Your task to perform on an android device: Go to notification settings Image 0: 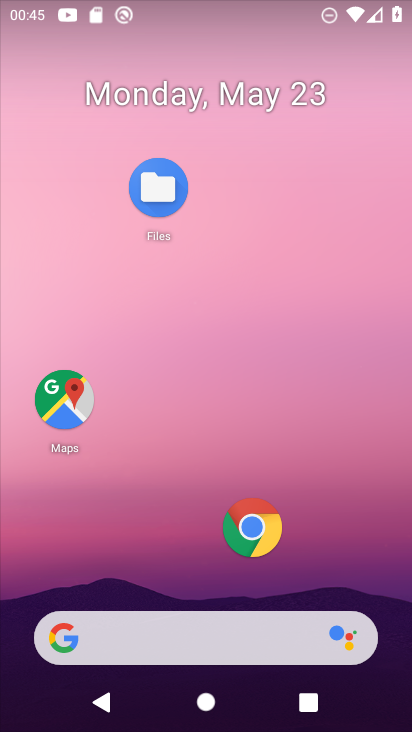
Step 0: drag from (200, 552) to (230, 126)
Your task to perform on an android device: Go to notification settings Image 1: 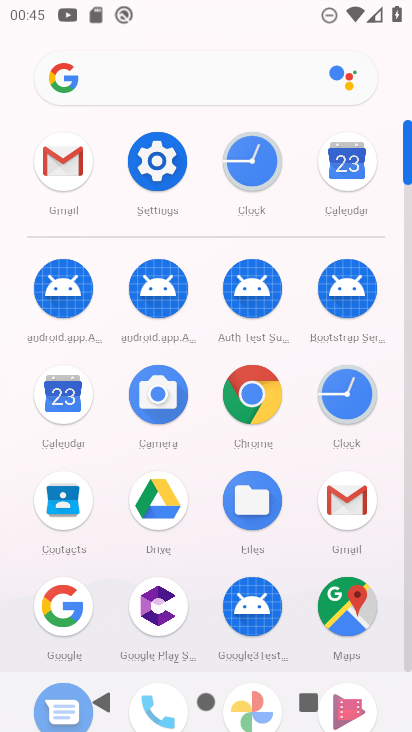
Step 1: click (162, 162)
Your task to perform on an android device: Go to notification settings Image 2: 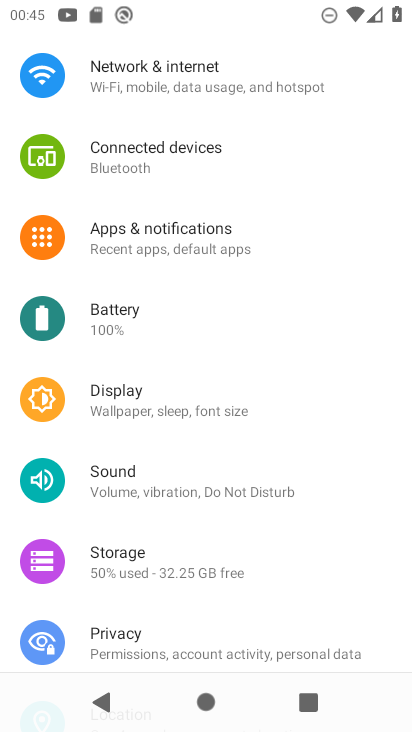
Step 2: click (175, 232)
Your task to perform on an android device: Go to notification settings Image 3: 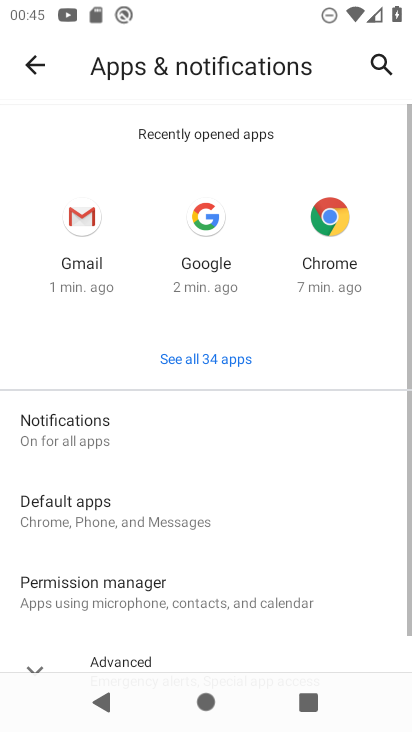
Step 3: task complete